Your task to perform on an android device: change timer sound Image 0: 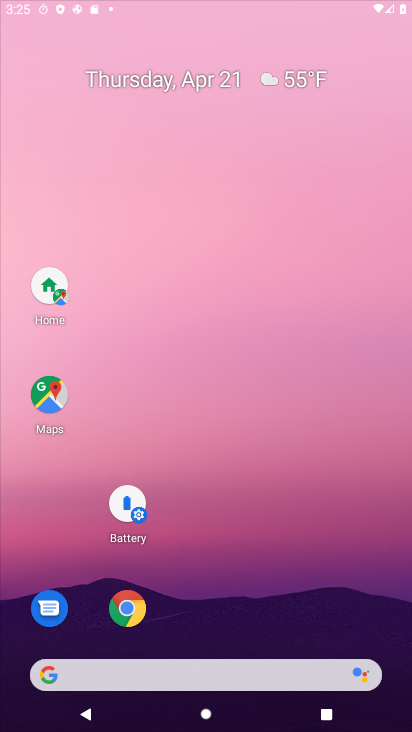
Step 0: drag from (316, 428) to (311, 51)
Your task to perform on an android device: change timer sound Image 1: 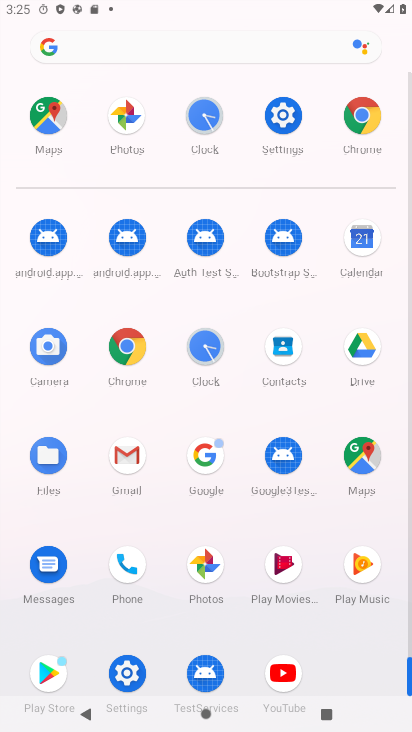
Step 1: click (296, 130)
Your task to perform on an android device: change timer sound Image 2: 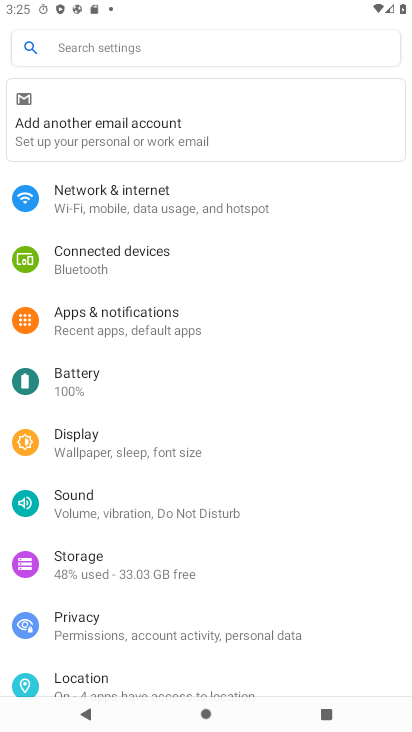
Step 2: press back button
Your task to perform on an android device: change timer sound Image 3: 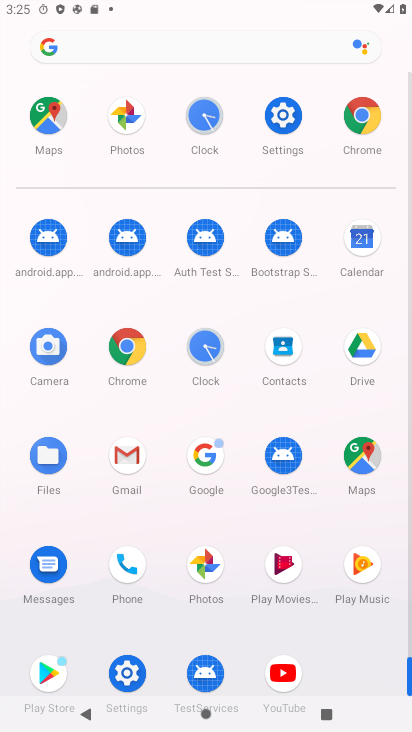
Step 3: click (218, 341)
Your task to perform on an android device: change timer sound Image 4: 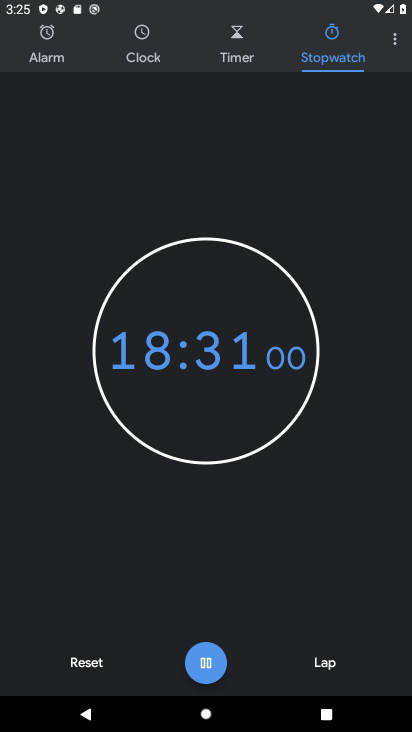
Step 4: click (388, 45)
Your task to perform on an android device: change timer sound Image 5: 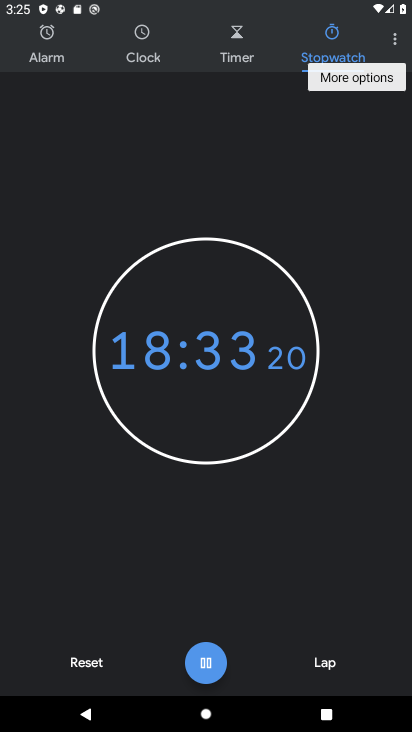
Step 5: click (389, 39)
Your task to perform on an android device: change timer sound Image 6: 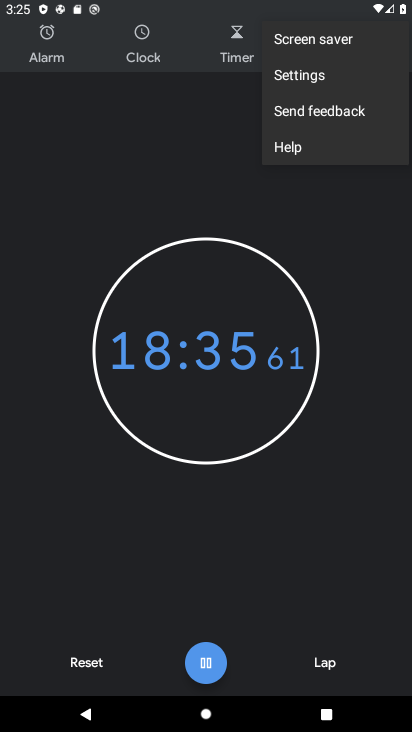
Step 6: click (299, 72)
Your task to perform on an android device: change timer sound Image 7: 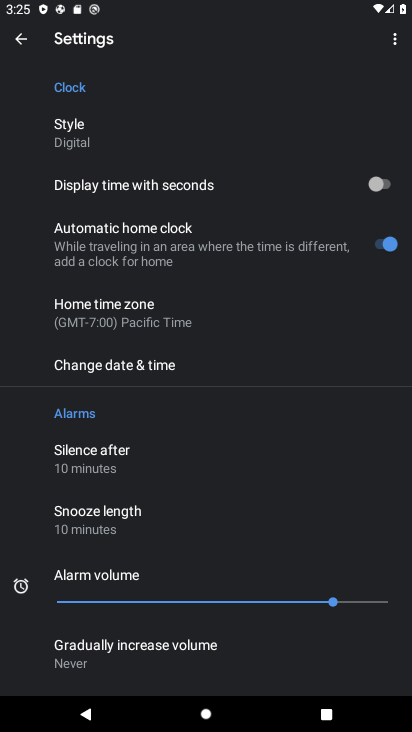
Step 7: drag from (185, 583) to (167, 249)
Your task to perform on an android device: change timer sound Image 8: 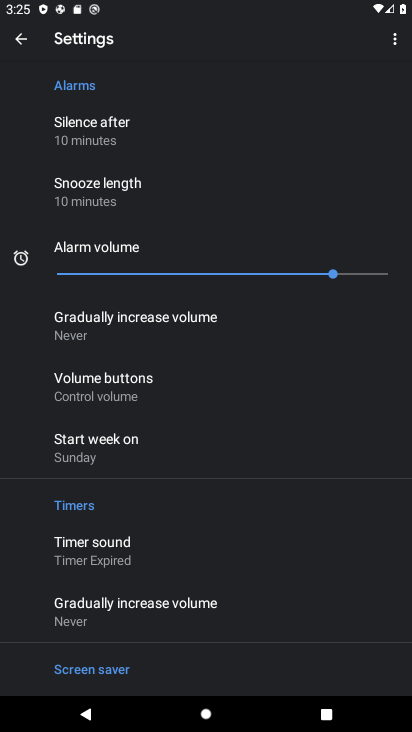
Step 8: click (119, 544)
Your task to perform on an android device: change timer sound Image 9: 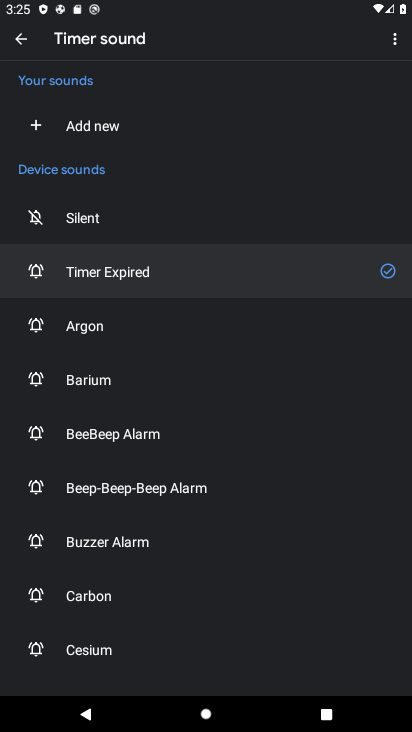
Step 9: click (70, 337)
Your task to perform on an android device: change timer sound Image 10: 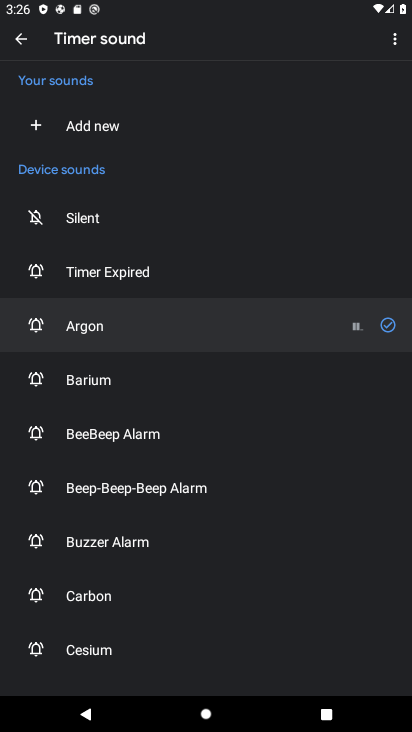
Step 10: task complete